Your task to perform on an android device: turn on data saver in the chrome app Image 0: 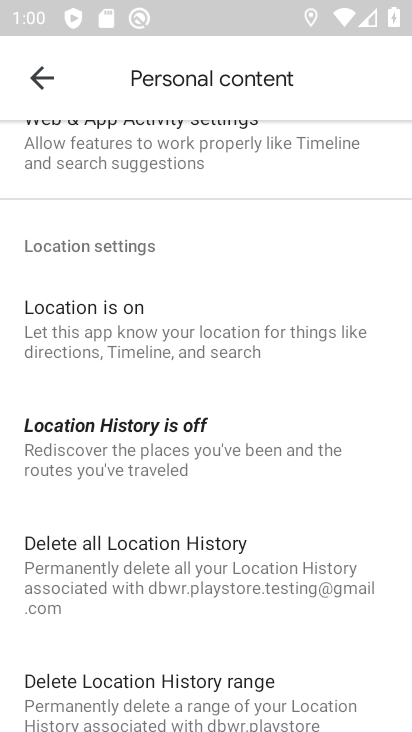
Step 0: press home button
Your task to perform on an android device: turn on data saver in the chrome app Image 1: 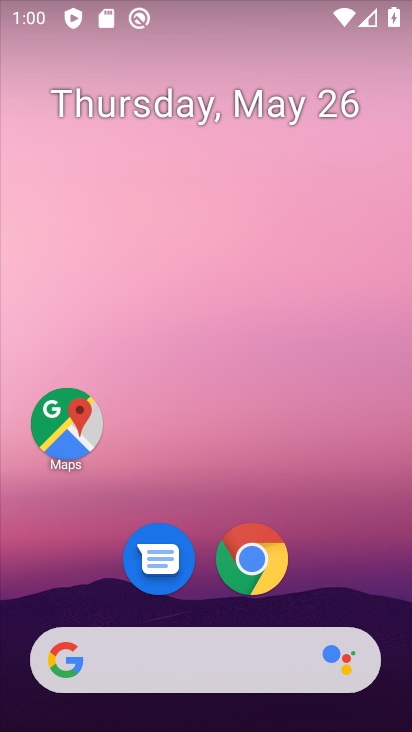
Step 1: drag from (145, 684) to (318, 97)
Your task to perform on an android device: turn on data saver in the chrome app Image 2: 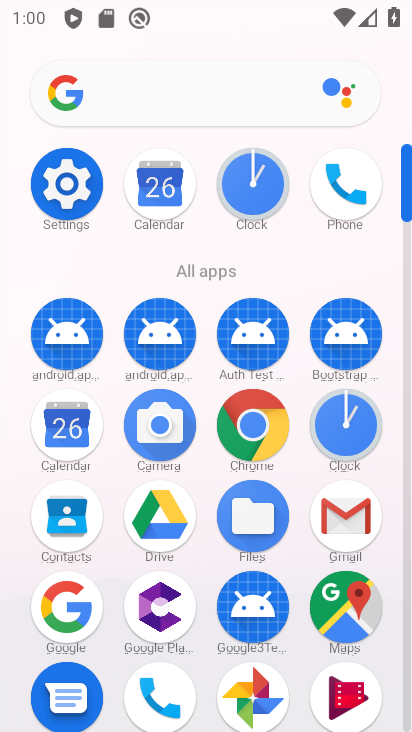
Step 2: click (244, 423)
Your task to perform on an android device: turn on data saver in the chrome app Image 3: 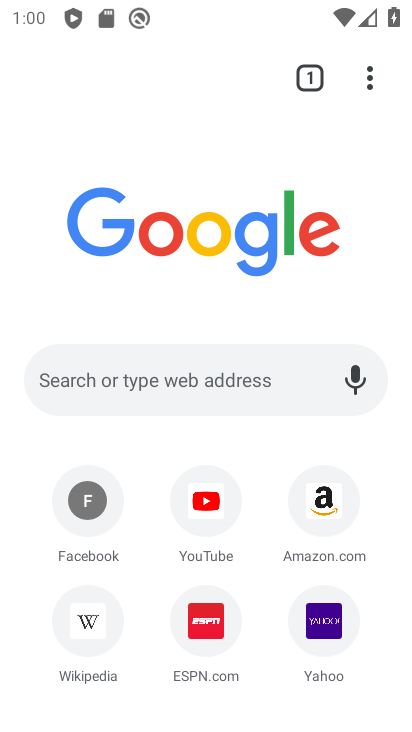
Step 3: drag from (370, 83) to (217, 620)
Your task to perform on an android device: turn on data saver in the chrome app Image 4: 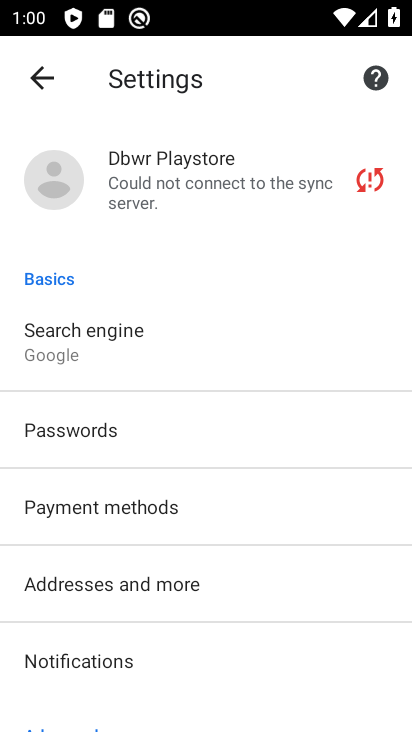
Step 4: drag from (199, 622) to (327, 120)
Your task to perform on an android device: turn on data saver in the chrome app Image 5: 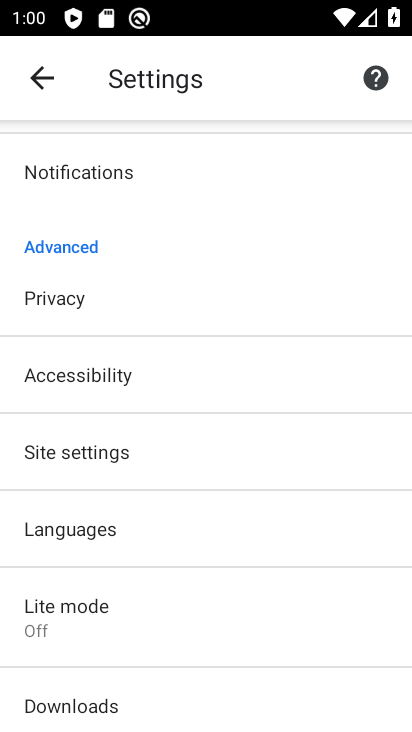
Step 5: click (115, 609)
Your task to perform on an android device: turn on data saver in the chrome app Image 6: 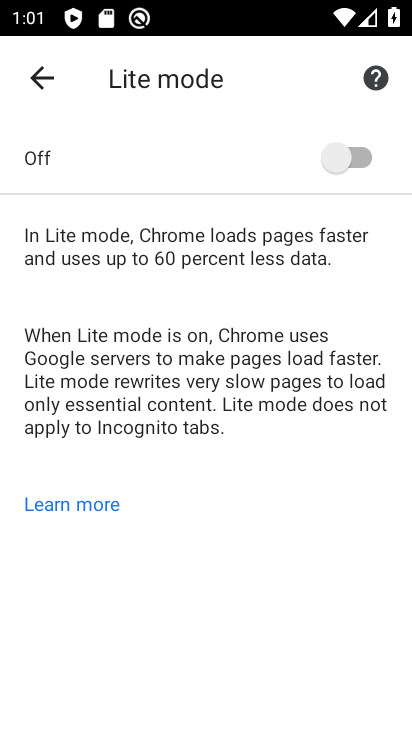
Step 6: click (362, 158)
Your task to perform on an android device: turn on data saver in the chrome app Image 7: 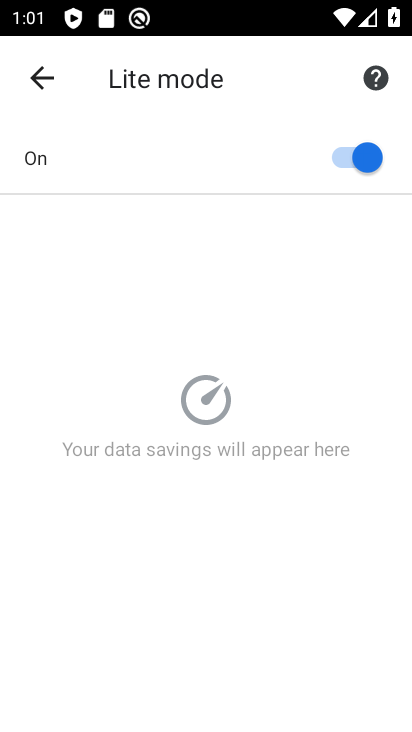
Step 7: task complete